Your task to perform on an android device: check out phone information Image 0: 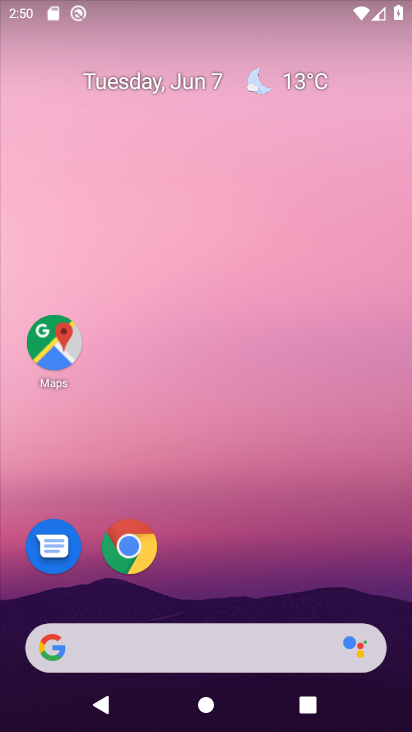
Step 0: drag from (316, 539) to (201, 6)
Your task to perform on an android device: check out phone information Image 1: 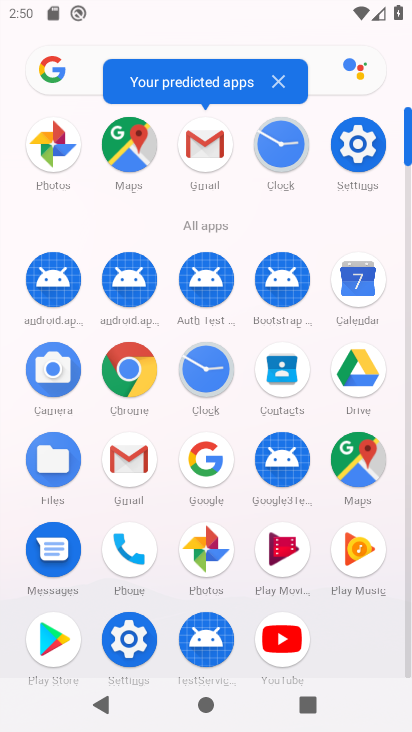
Step 1: drag from (12, 561) to (31, 211)
Your task to perform on an android device: check out phone information Image 2: 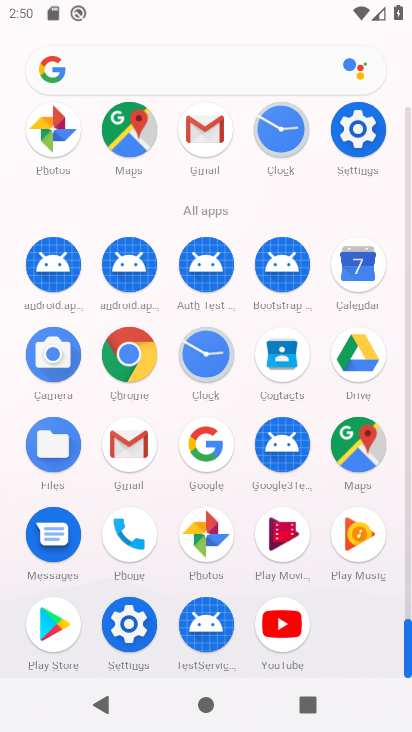
Step 2: click (126, 620)
Your task to perform on an android device: check out phone information Image 3: 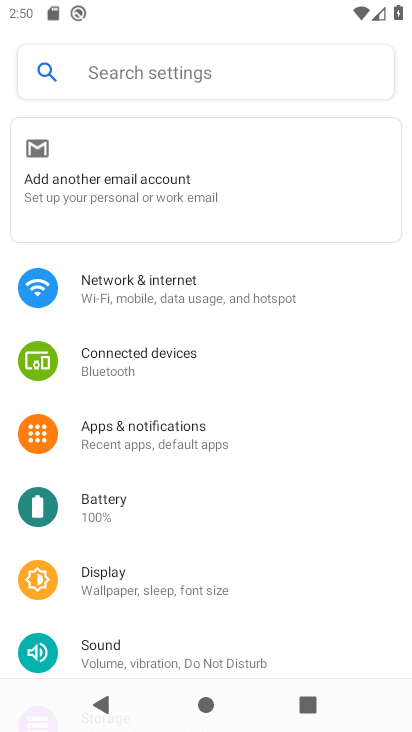
Step 3: drag from (284, 604) to (270, 97)
Your task to perform on an android device: check out phone information Image 4: 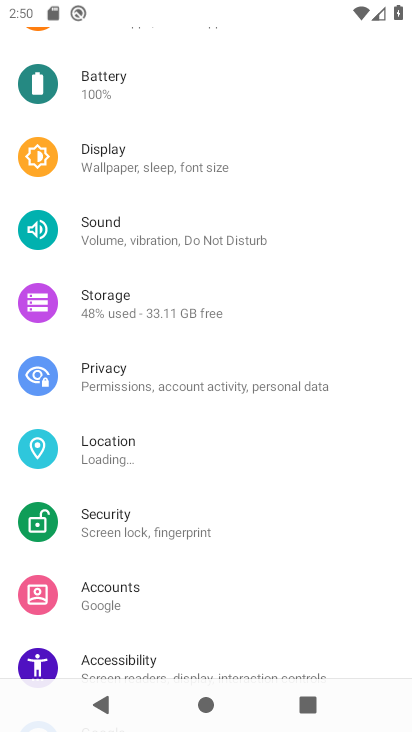
Step 4: drag from (267, 596) to (265, 127)
Your task to perform on an android device: check out phone information Image 5: 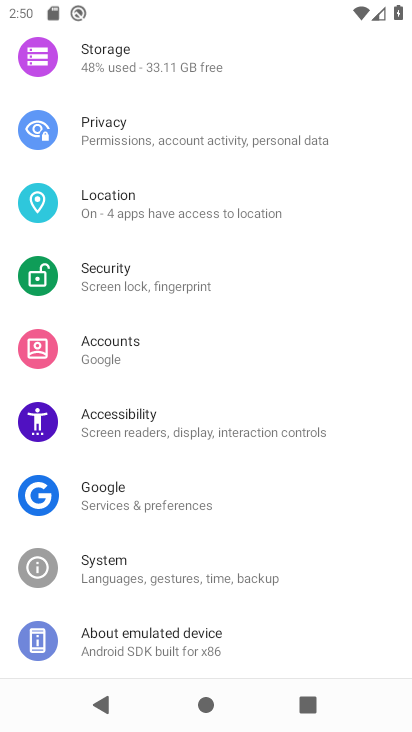
Step 5: click (190, 639)
Your task to perform on an android device: check out phone information Image 6: 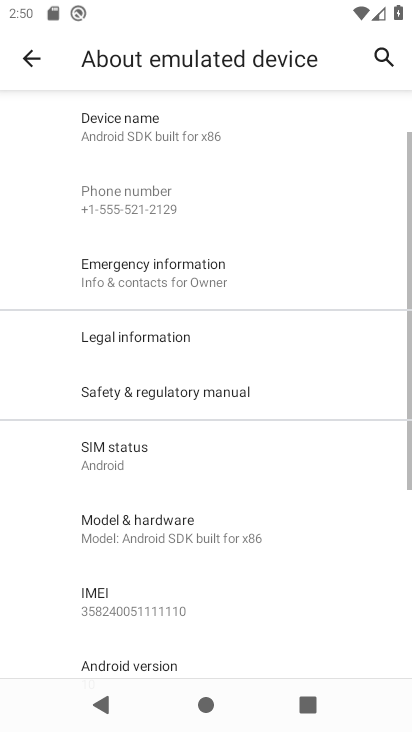
Step 6: task complete